Your task to perform on an android device: Go to wifi settings Image 0: 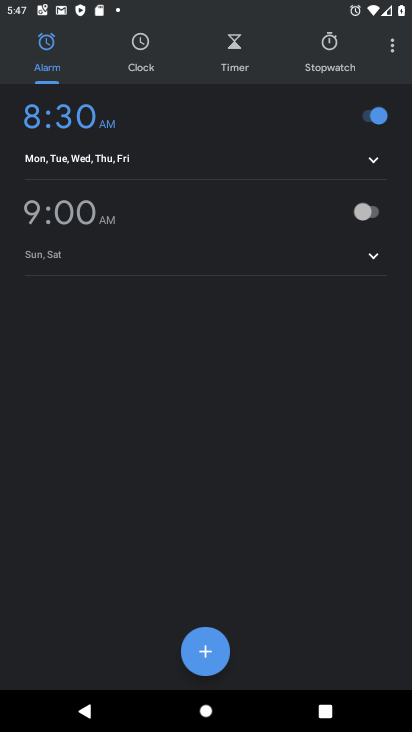
Step 0: press home button
Your task to perform on an android device: Go to wifi settings Image 1: 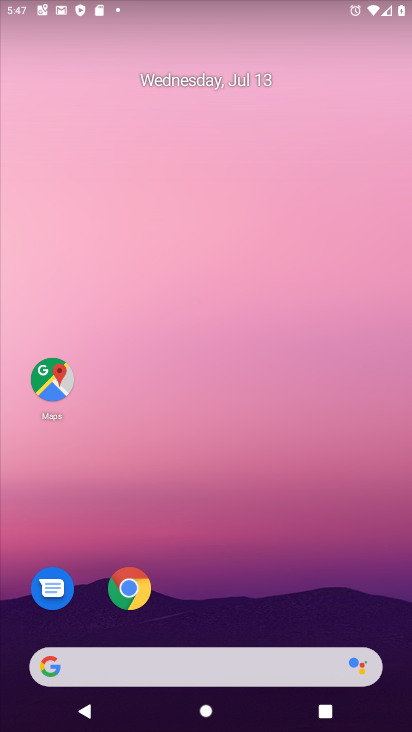
Step 1: drag from (195, 498) to (246, 119)
Your task to perform on an android device: Go to wifi settings Image 2: 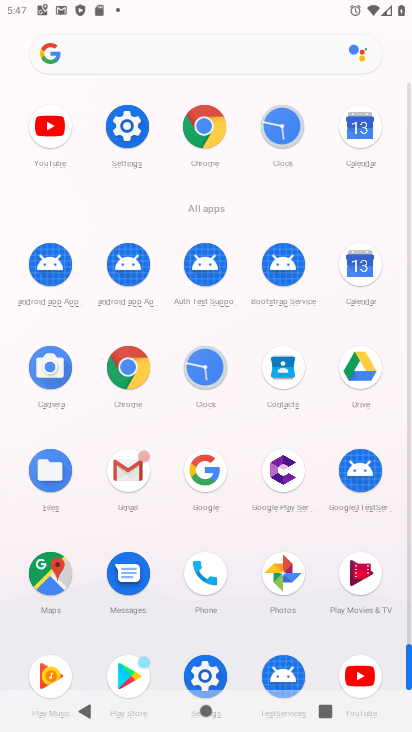
Step 2: click (127, 137)
Your task to perform on an android device: Go to wifi settings Image 3: 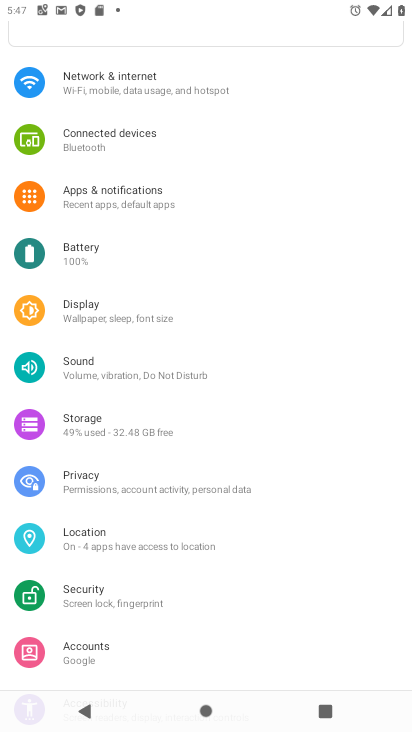
Step 3: click (116, 89)
Your task to perform on an android device: Go to wifi settings Image 4: 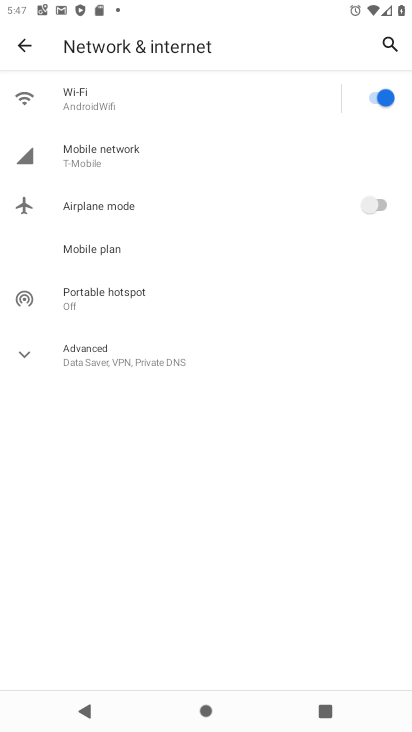
Step 4: click (93, 105)
Your task to perform on an android device: Go to wifi settings Image 5: 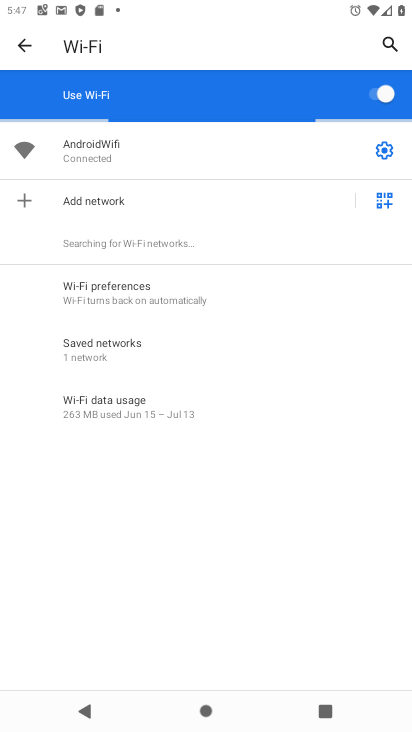
Step 5: task complete